Your task to perform on an android device: toggle show notifications on the lock screen Image 0: 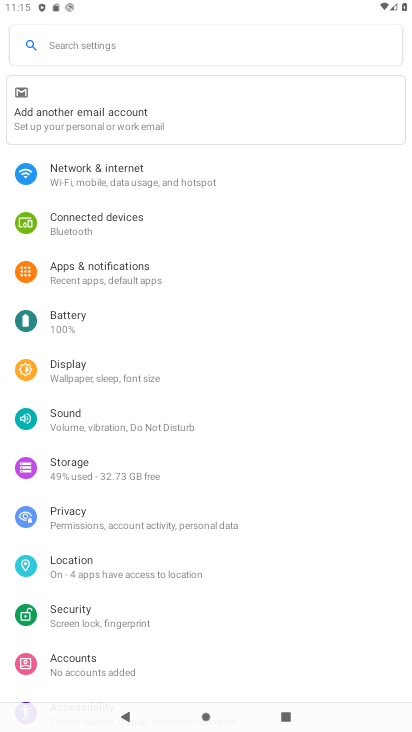
Step 0: click (95, 264)
Your task to perform on an android device: toggle show notifications on the lock screen Image 1: 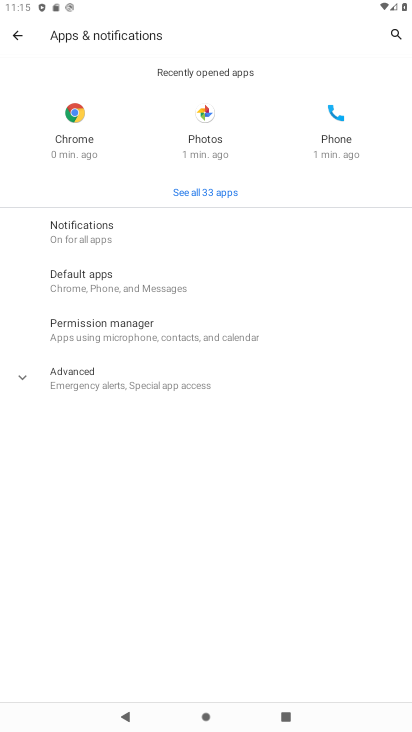
Step 1: click (76, 229)
Your task to perform on an android device: toggle show notifications on the lock screen Image 2: 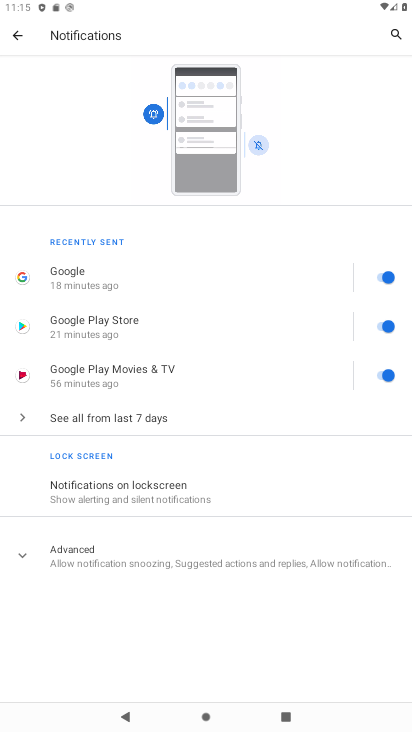
Step 2: click (80, 490)
Your task to perform on an android device: toggle show notifications on the lock screen Image 3: 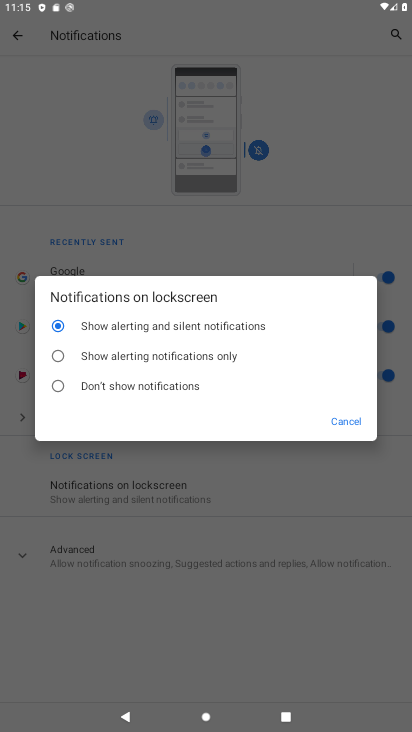
Step 3: click (52, 384)
Your task to perform on an android device: toggle show notifications on the lock screen Image 4: 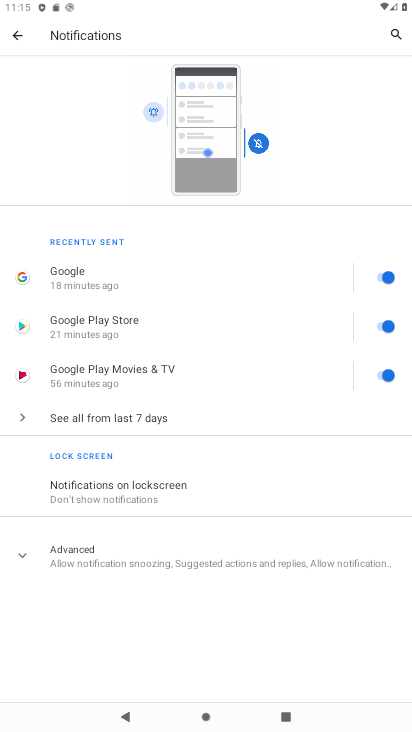
Step 4: task complete